Your task to perform on an android device: Open Google Maps and go to "Timeline" Image 0: 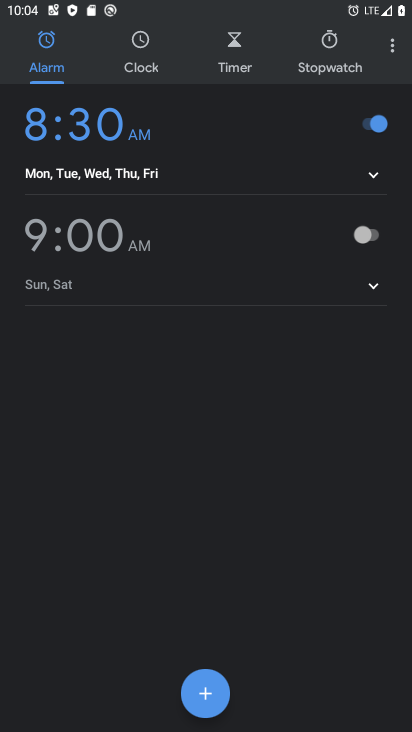
Step 0: press home button
Your task to perform on an android device: Open Google Maps and go to "Timeline" Image 1: 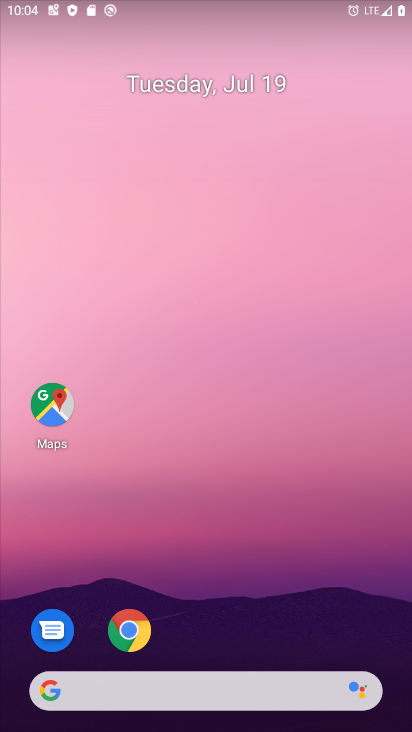
Step 1: click (52, 398)
Your task to perform on an android device: Open Google Maps and go to "Timeline" Image 2: 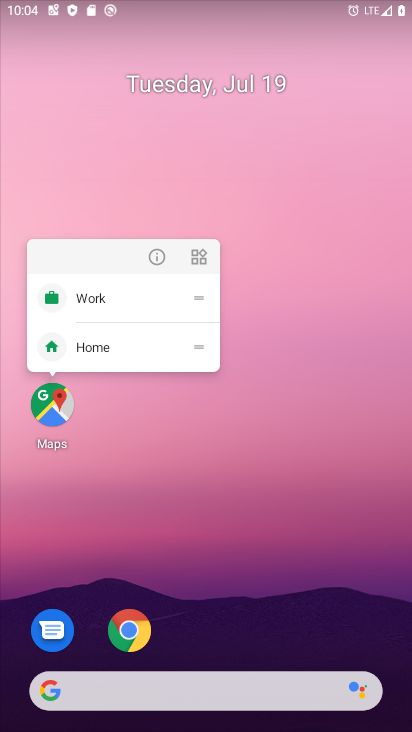
Step 2: click (47, 408)
Your task to perform on an android device: Open Google Maps and go to "Timeline" Image 3: 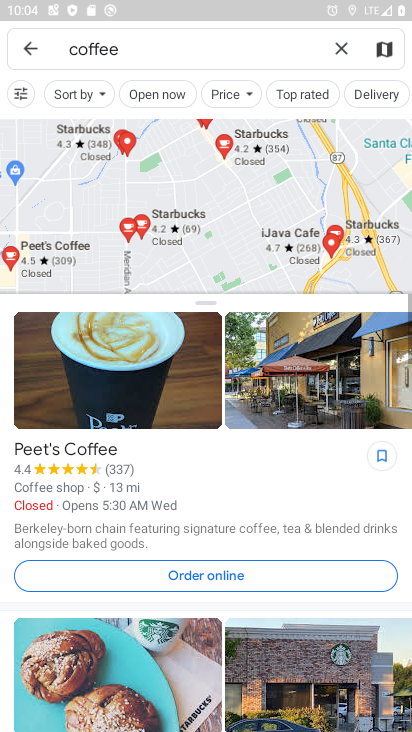
Step 3: click (338, 47)
Your task to perform on an android device: Open Google Maps and go to "Timeline" Image 4: 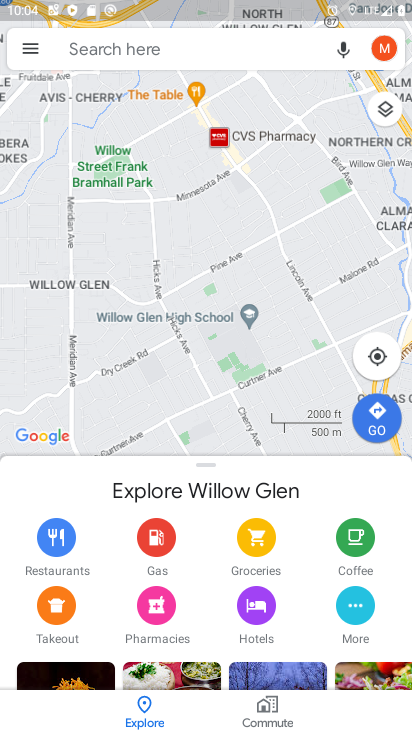
Step 4: click (22, 47)
Your task to perform on an android device: Open Google Maps and go to "Timeline" Image 5: 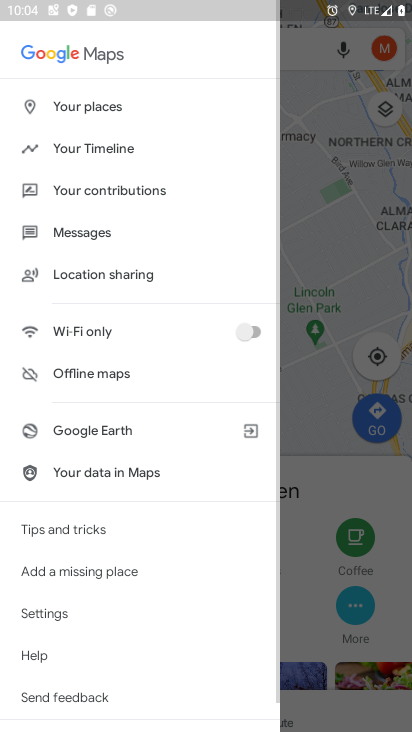
Step 5: click (94, 148)
Your task to perform on an android device: Open Google Maps and go to "Timeline" Image 6: 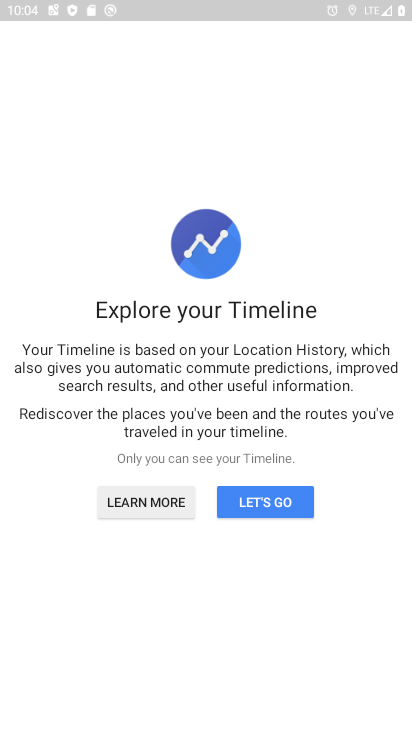
Step 6: click (272, 499)
Your task to perform on an android device: Open Google Maps and go to "Timeline" Image 7: 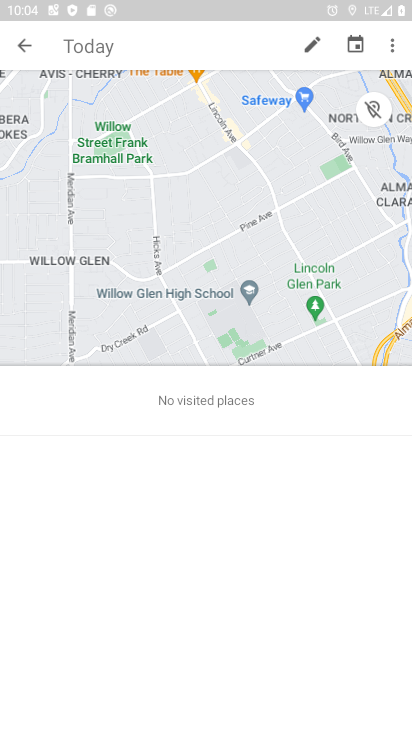
Step 7: task complete